Your task to perform on an android device: clear all cookies in the chrome app Image 0: 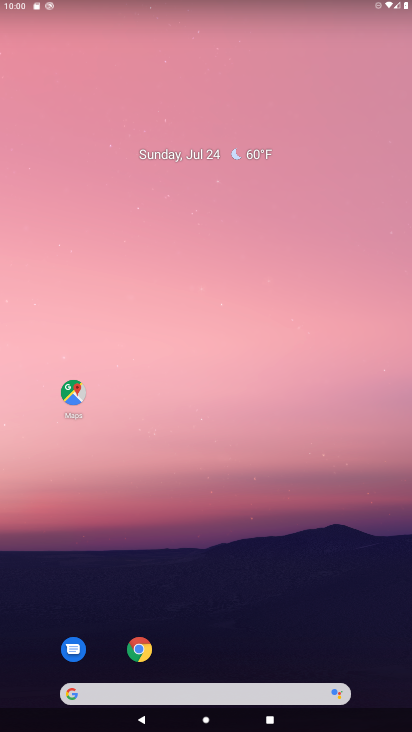
Step 0: drag from (327, 629) to (277, 147)
Your task to perform on an android device: clear all cookies in the chrome app Image 1: 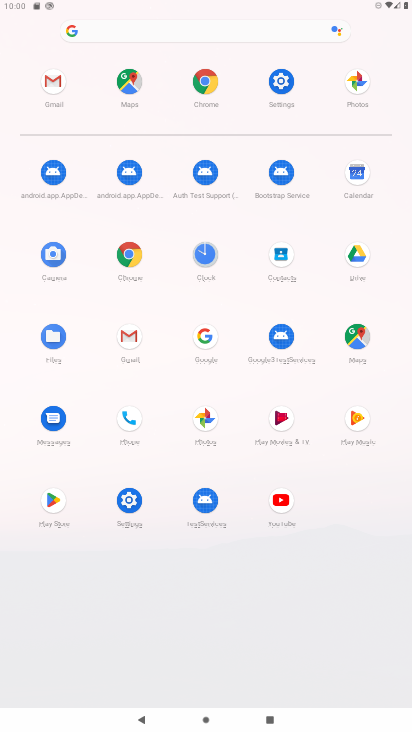
Step 1: click (126, 257)
Your task to perform on an android device: clear all cookies in the chrome app Image 2: 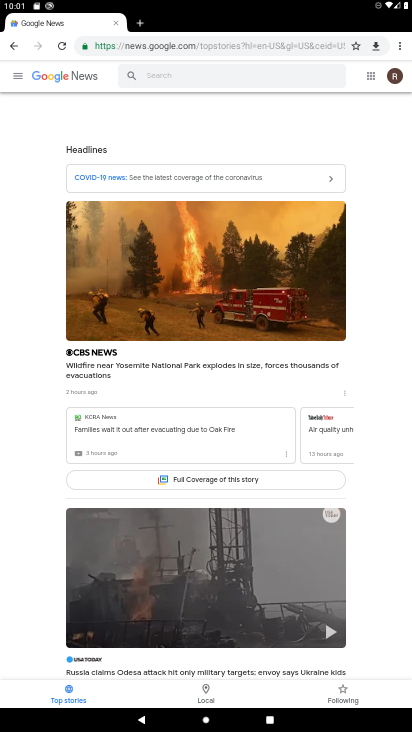
Step 2: drag from (404, 37) to (305, 173)
Your task to perform on an android device: clear all cookies in the chrome app Image 3: 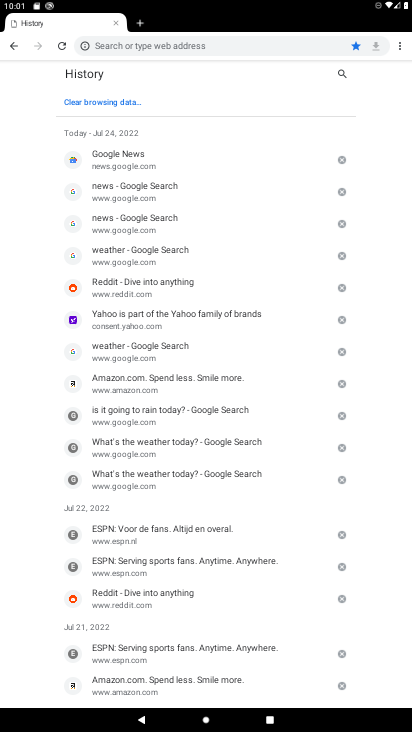
Step 3: click (83, 97)
Your task to perform on an android device: clear all cookies in the chrome app Image 4: 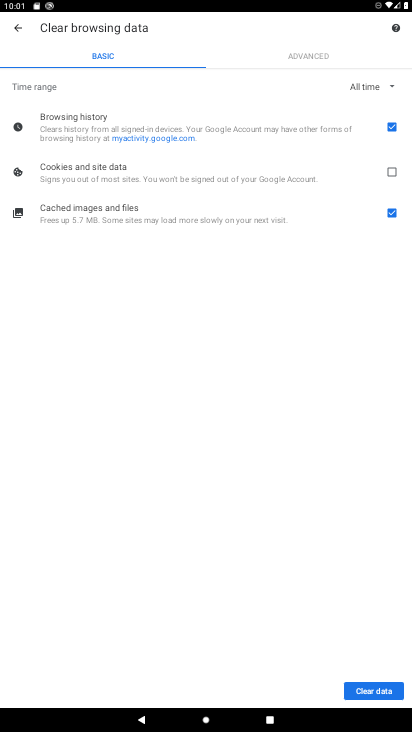
Step 4: click (394, 175)
Your task to perform on an android device: clear all cookies in the chrome app Image 5: 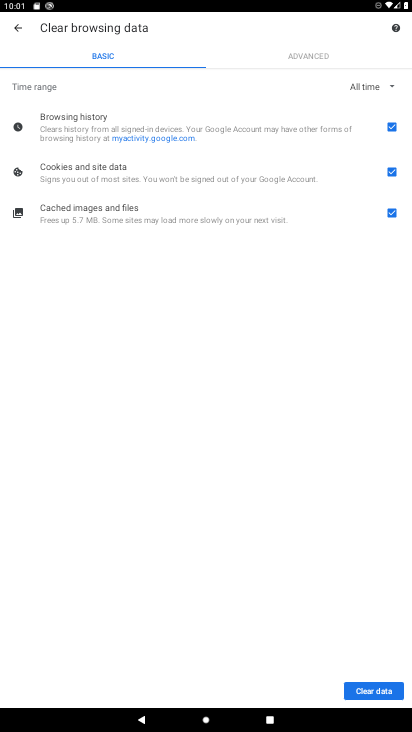
Step 5: click (367, 686)
Your task to perform on an android device: clear all cookies in the chrome app Image 6: 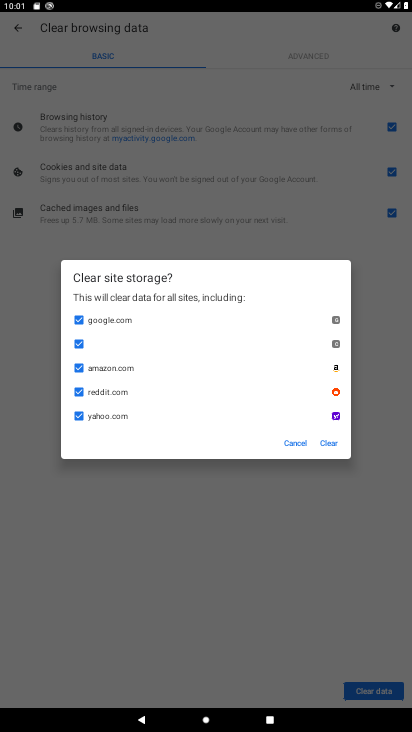
Step 6: click (332, 447)
Your task to perform on an android device: clear all cookies in the chrome app Image 7: 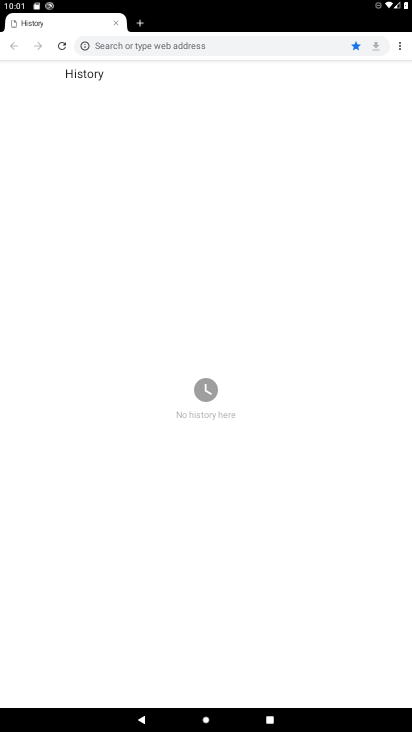
Step 7: task complete